Your task to perform on an android device: Go to Wikipedia Image 0: 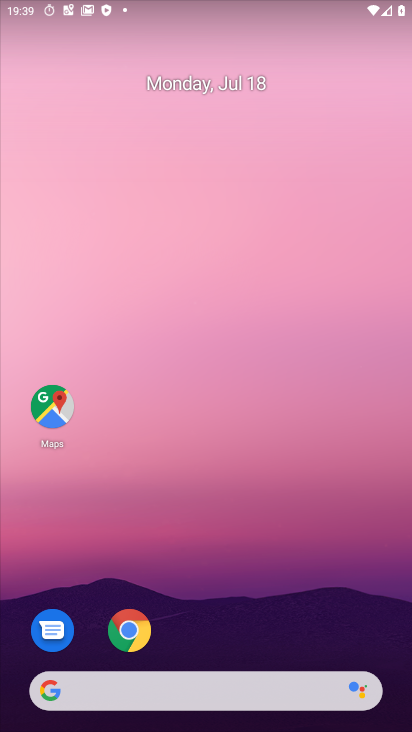
Step 0: drag from (293, 460) to (10, 296)
Your task to perform on an android device: Go to Wikipedia Image 1: 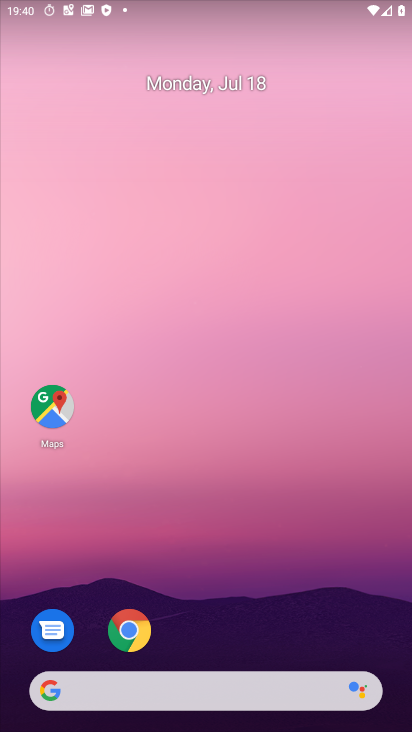
Step 1: drag from (268, 511) to (202, 0)
Your task to perform on an android device: Go to Wikipedia Image 2: 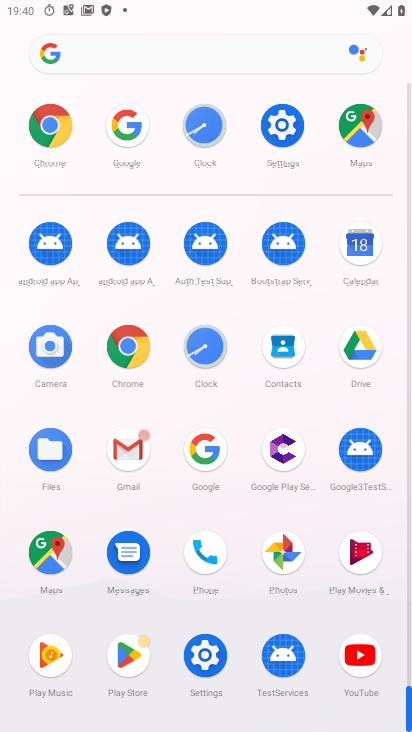
Step 2: click (48, 126)
Your task to perform on an android device: Go to Wikipedia Image 3: 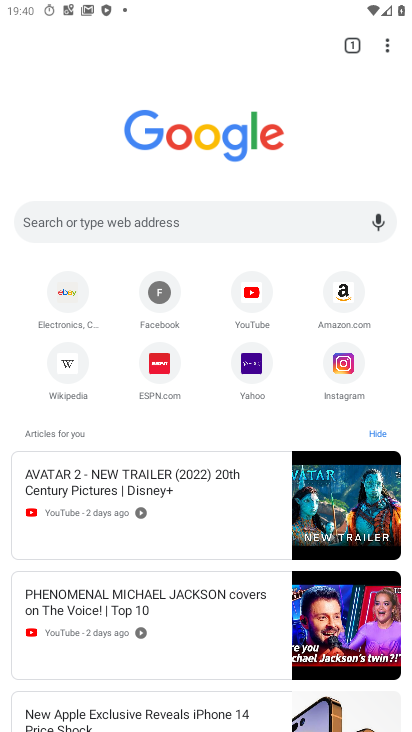
Step 3: click (70, 374)
Your task to perform on an android device: Go to Wikipedia Image 4: 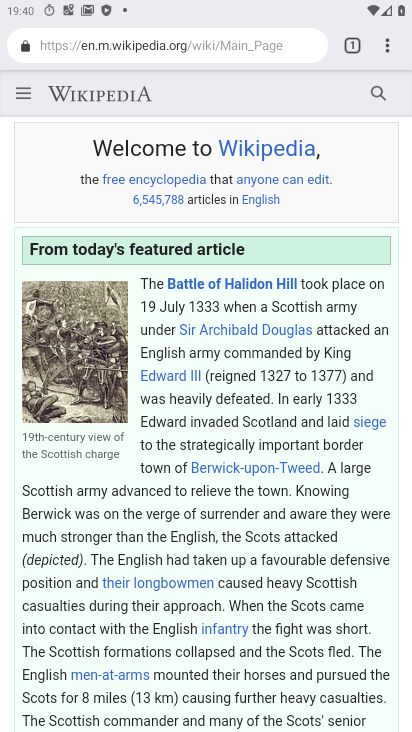
Step 4: task complete